Your task to perform on an android device: Turn off the flashlight Image 0: 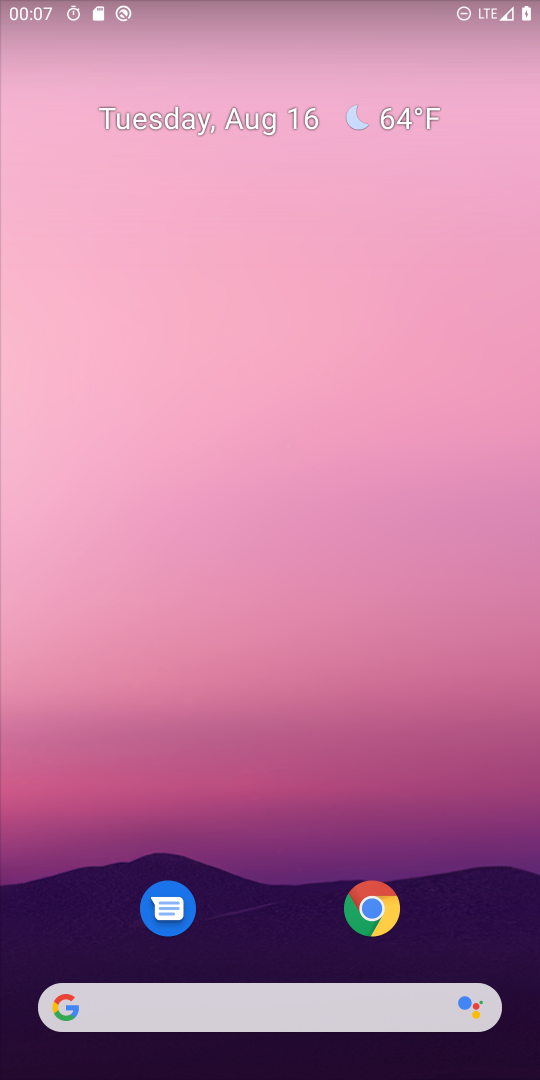
Step 0: drag from (269, 977) to (242, 17)
Your task to perform on an android device: Turn off the flashlight Image 1: 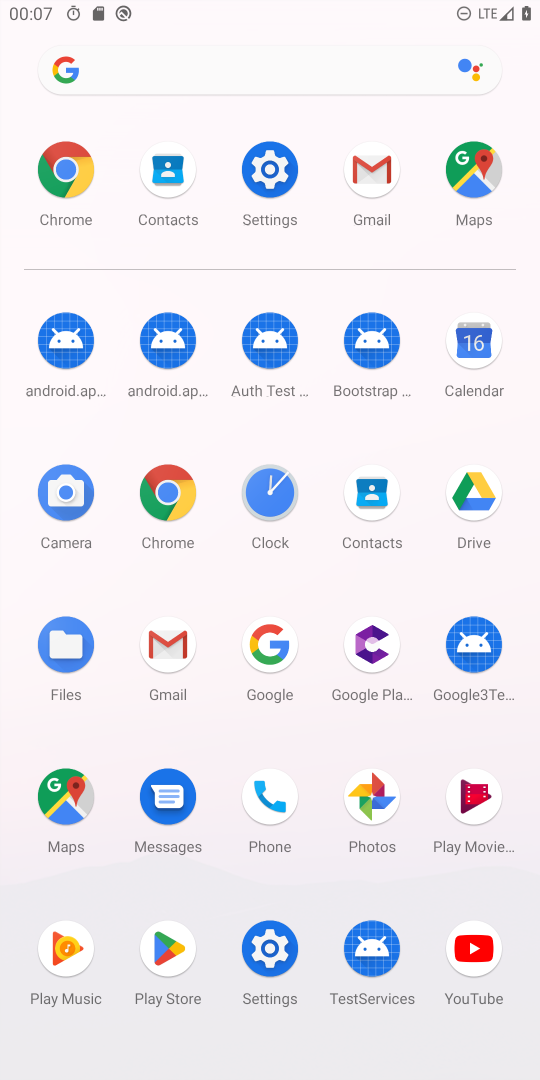
Step 1: click (267, 192)
Your task to perform on an android device: Turn off the flashlight Image 2: 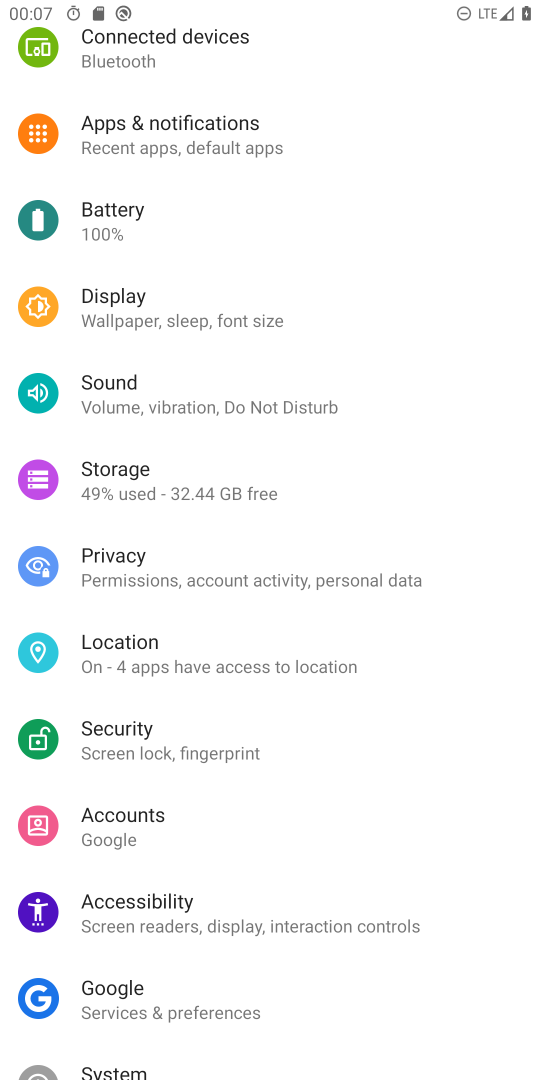
Step 2: task complete